Your task to perform on an android device: Add logitech g pro to the cart on walmart.com, then select checkout. Image 0: 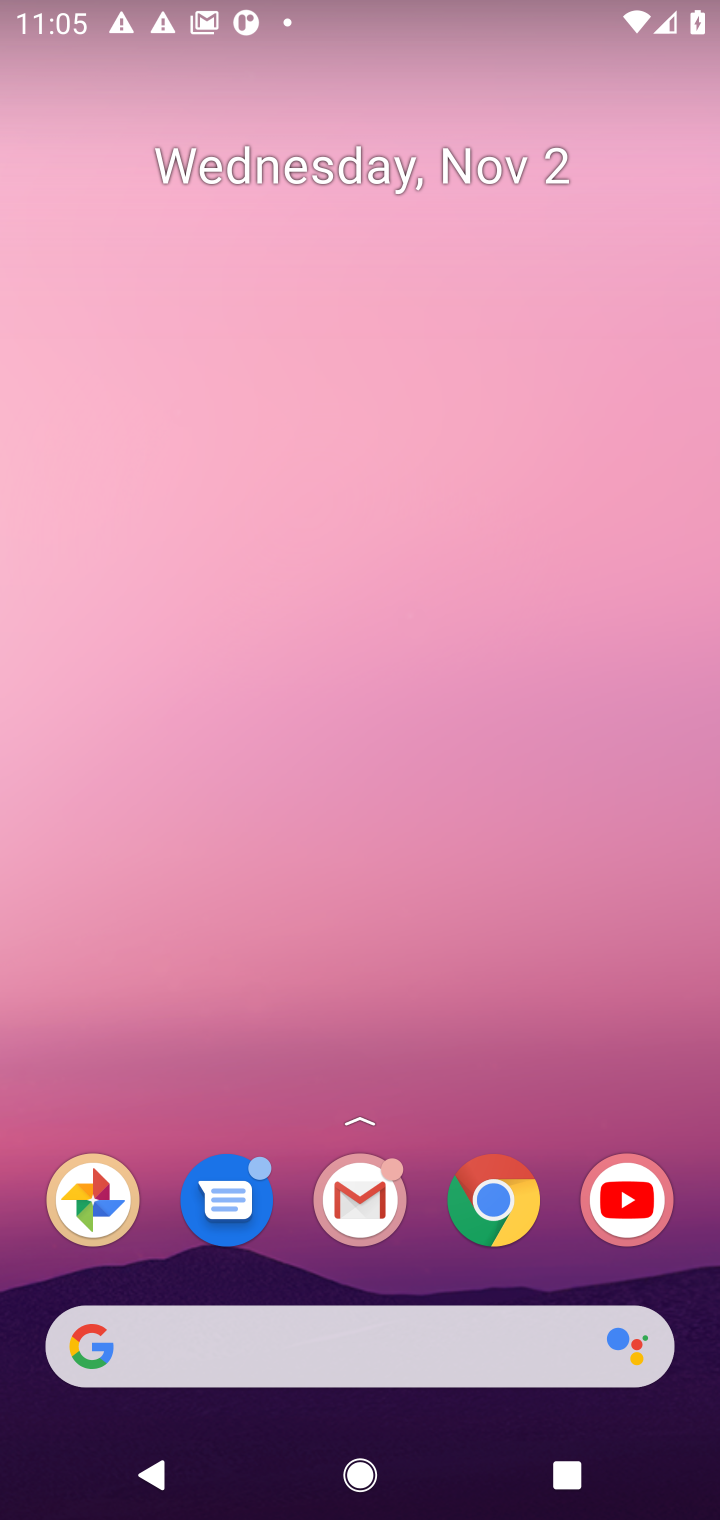
Step 0: click (512, 1194)
Your task to perform on an android device: Add logitech g pro to the cart on walmart.com, then select checkout. Image 1: 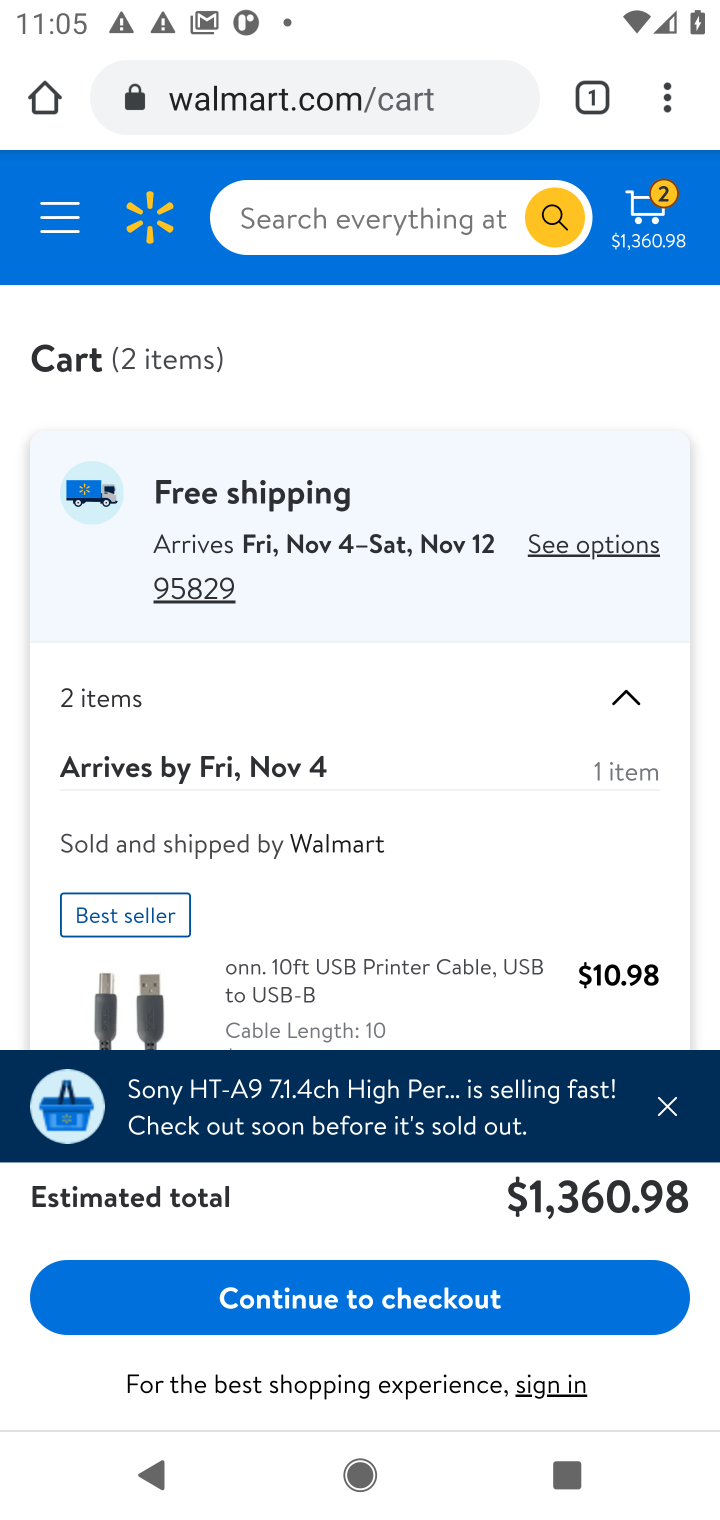
Step 1: click (376, 203)
Your task to perform on an android device: Add logitech g pro to the cart on walmart.com, then select checkout. Image 2: 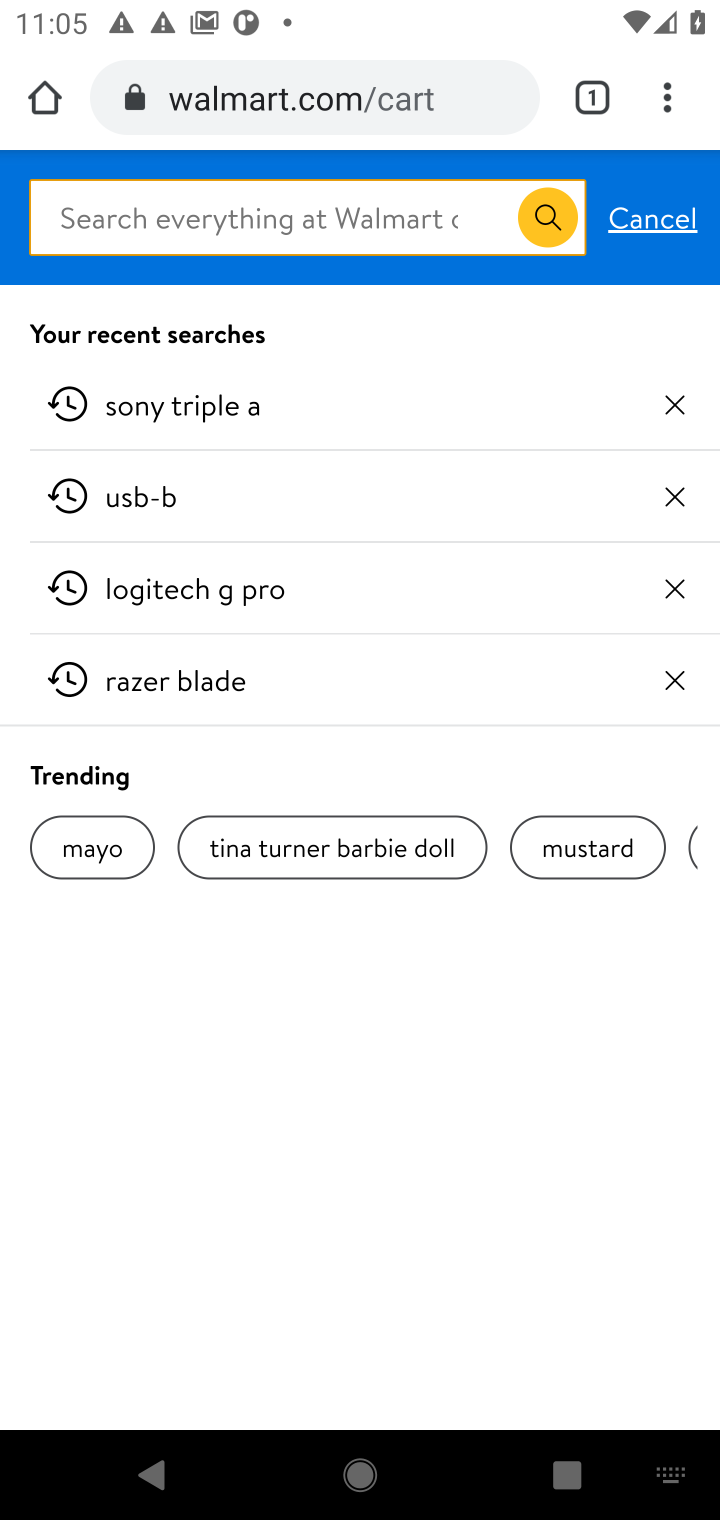
Step 2: click (215, 574)
Your task to perform on an android device: Add logitech g pro to the cart on walmart.com, then select checkout. Image 3: 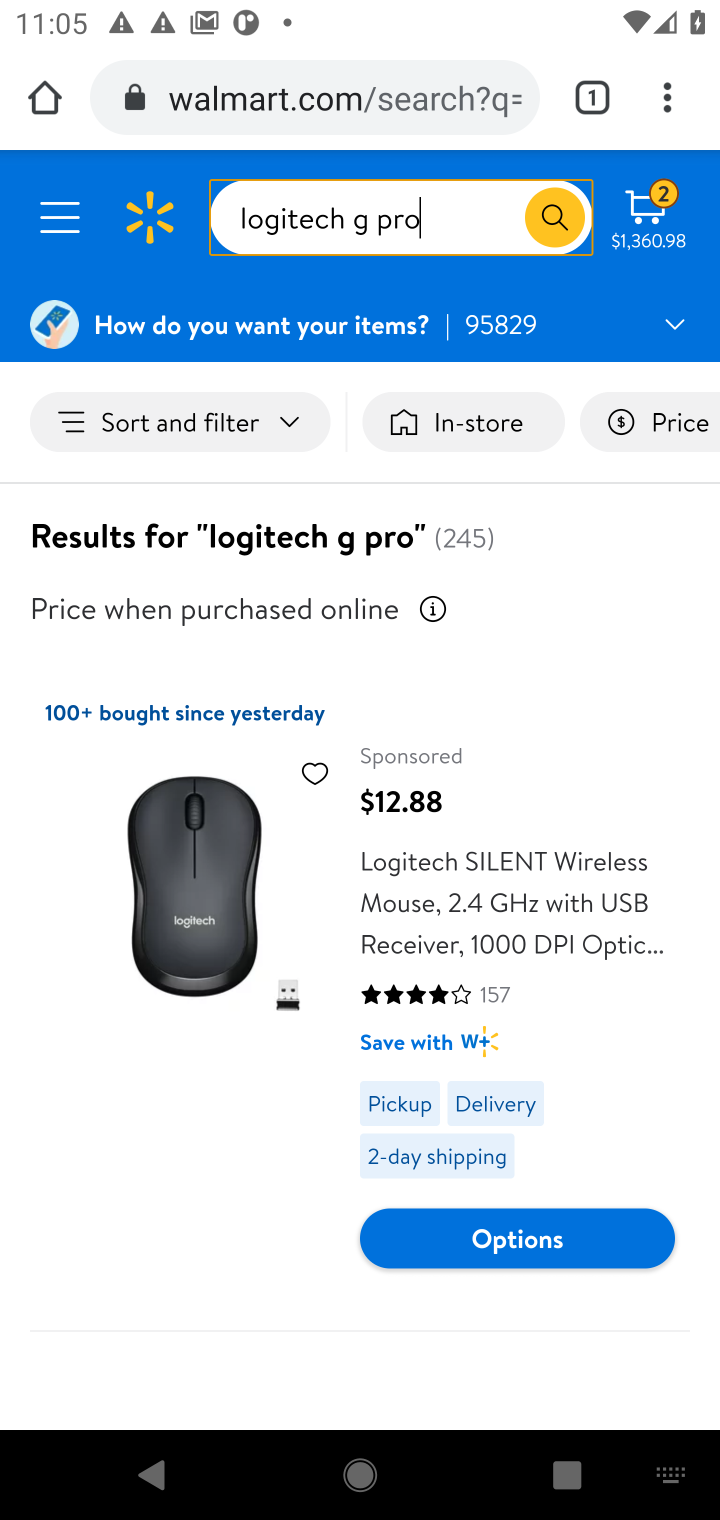
Step 3: drag from (196, 1055) to (173, 450)
Your task to perform on an android device: Add logitech g pro to the cart on walmart.com, then select checkout. Image 4: 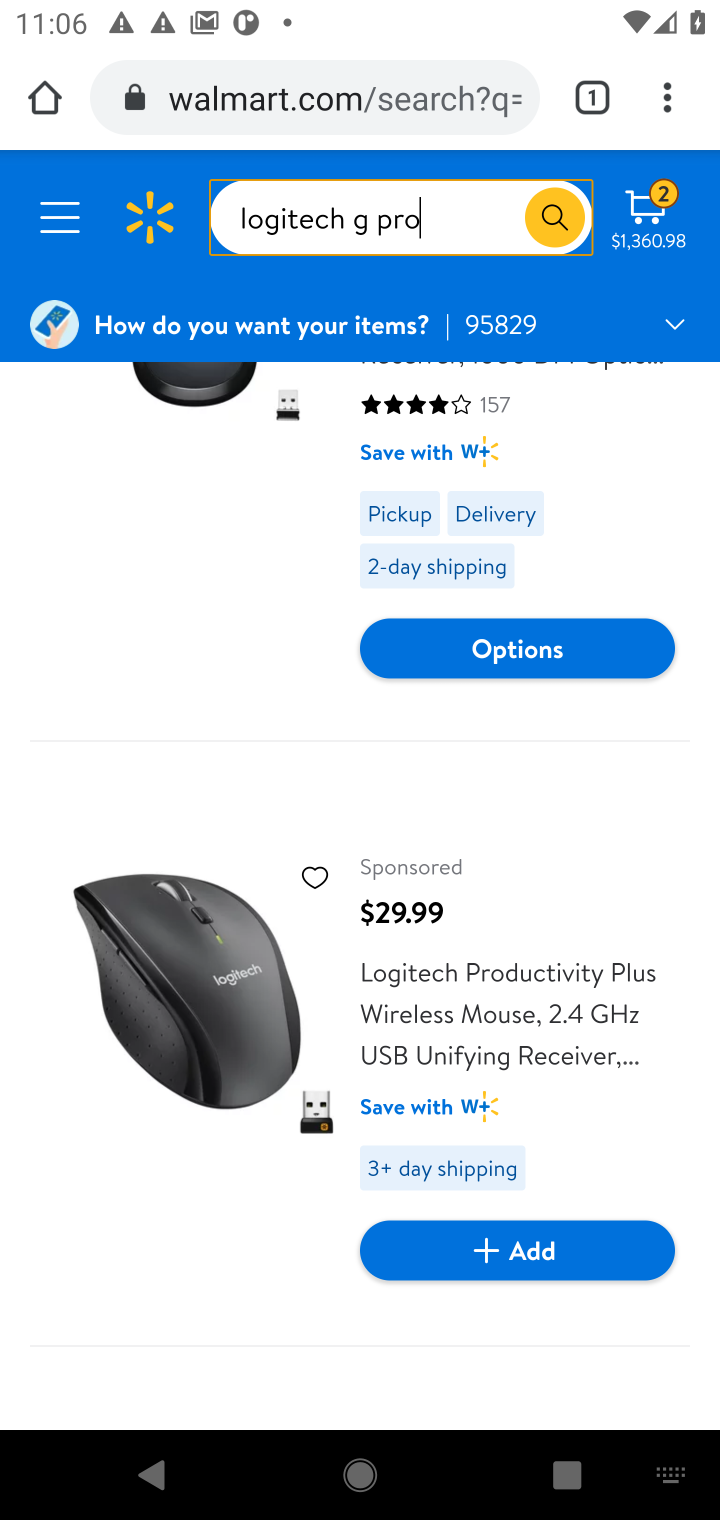
Step 4: drag from (163, 962) to (208, 467)
Your task to perform on an android device: Add logitech g pro to the cart on walmart.com, then select checkout. Image 5: 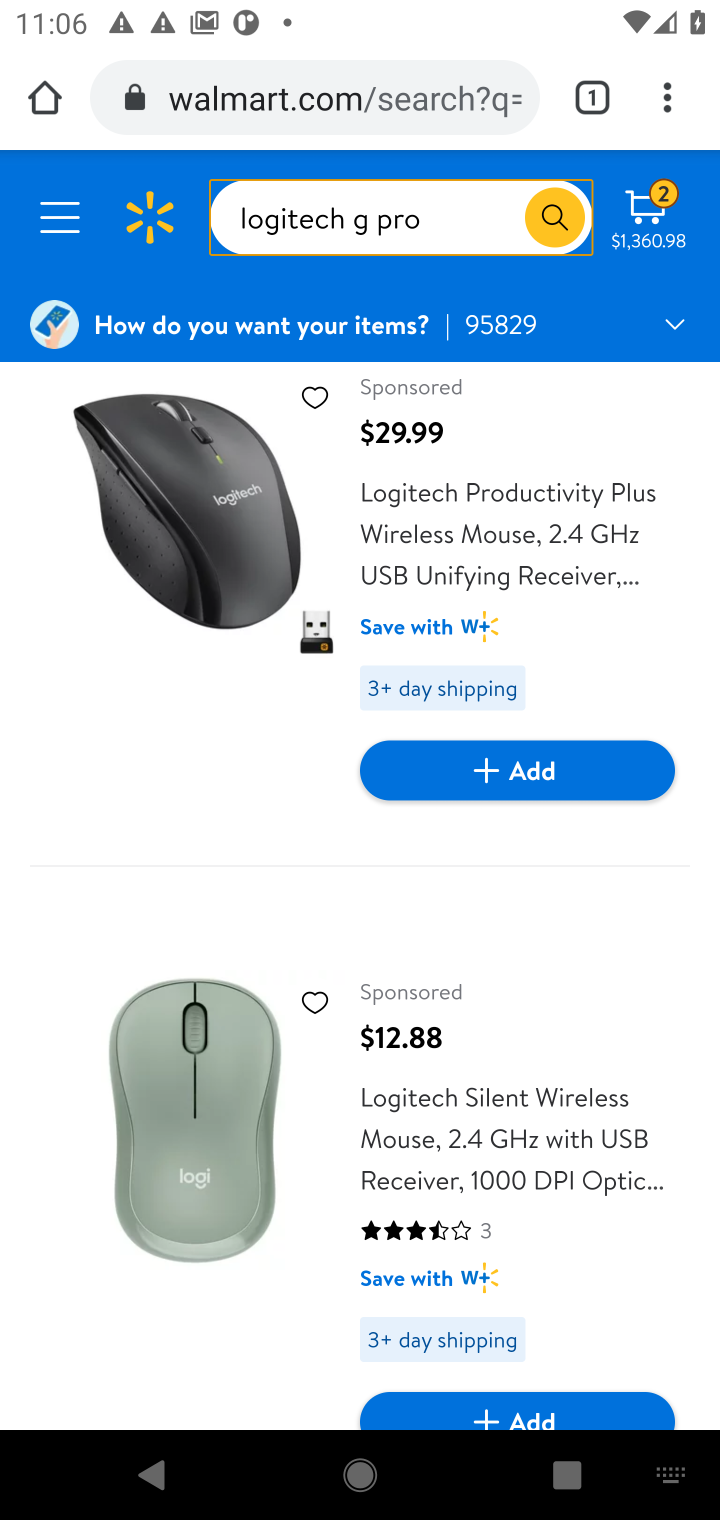
Step 5: drag from (212, 1205) to (229, 601)
Your task to perform on an android device: Add logitech g pro to the cart on walmart.com, then select checkout. Image 6: 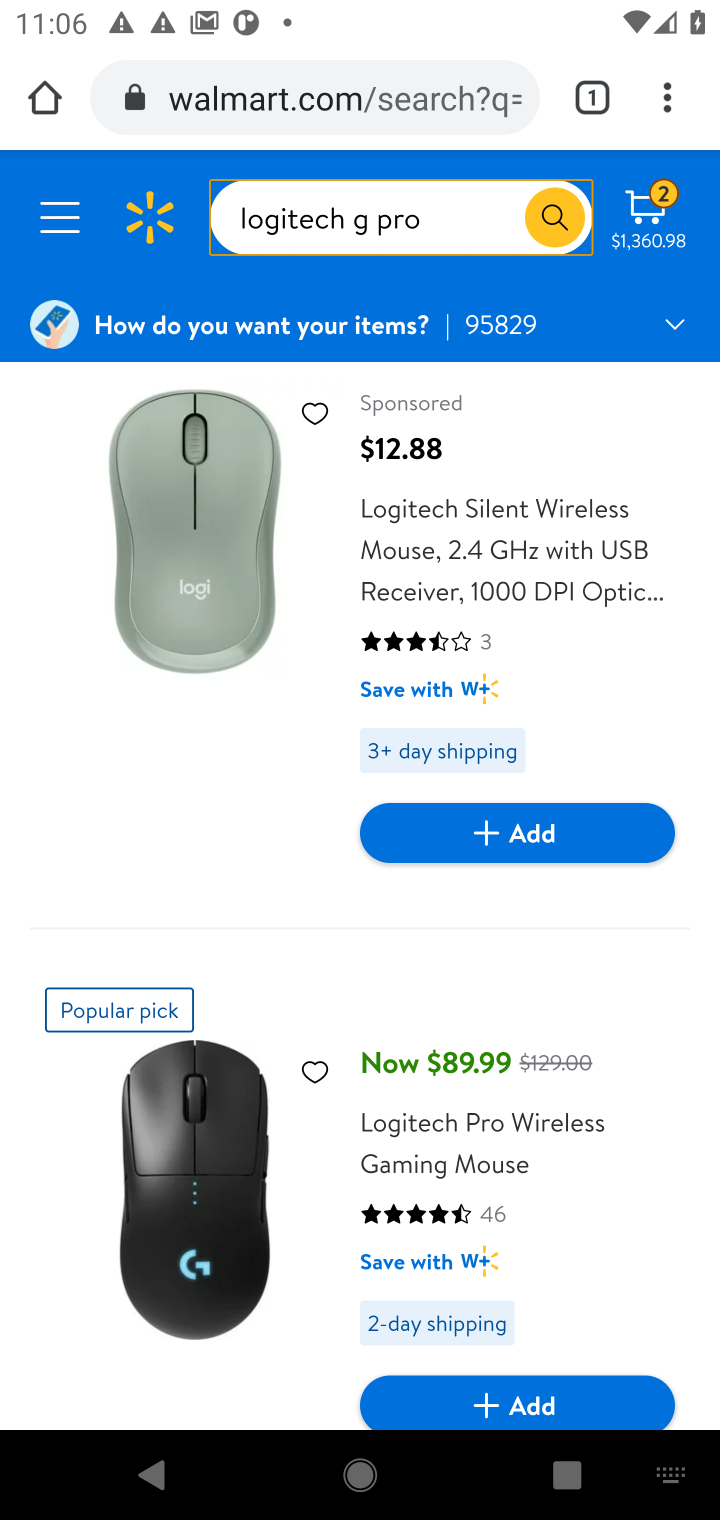
Step 6: drag from (146, 1136) to (282, 502)
Your task to perform on an android device: Add logitech g pro to the cart on walmart.com, then select checkout. Image 7: 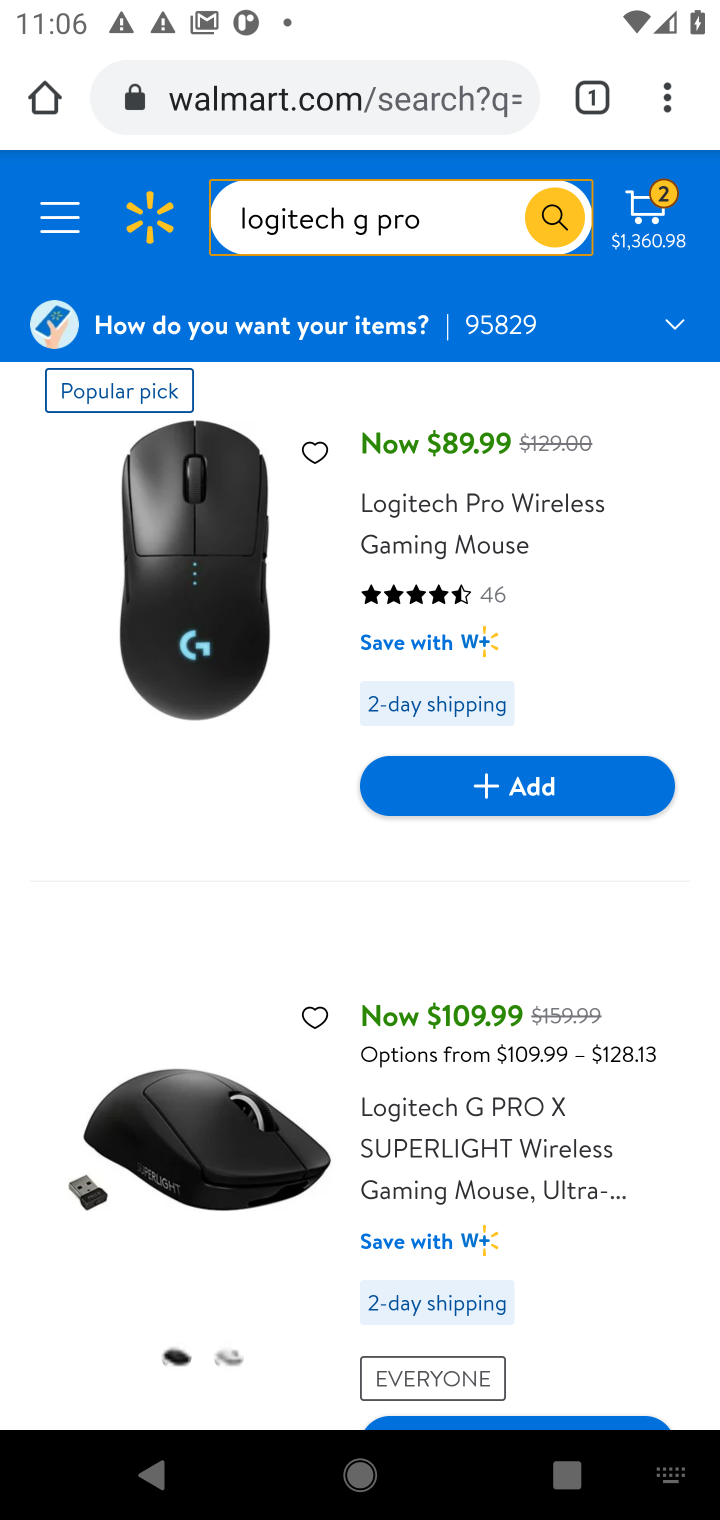
Step 7: click (172, 1179)
Your task to perform on an android device: Add logitech g pro to the cart on walmart.com, then select checkout. Image 8: 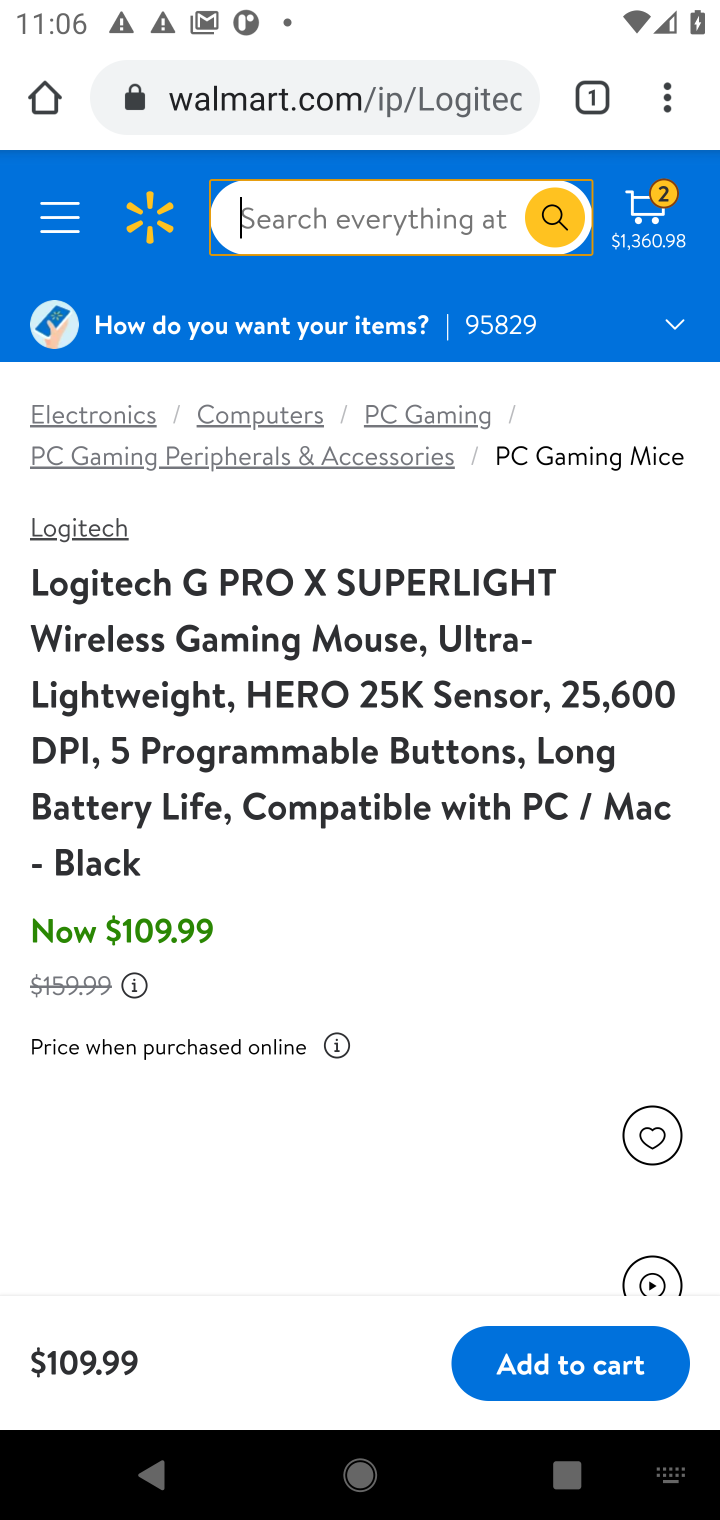
Step 8: click (548, 1372)
Your task to perform on an android device: Add logitech g pro to the cart on walmart.com, then select checkout. Image 9: 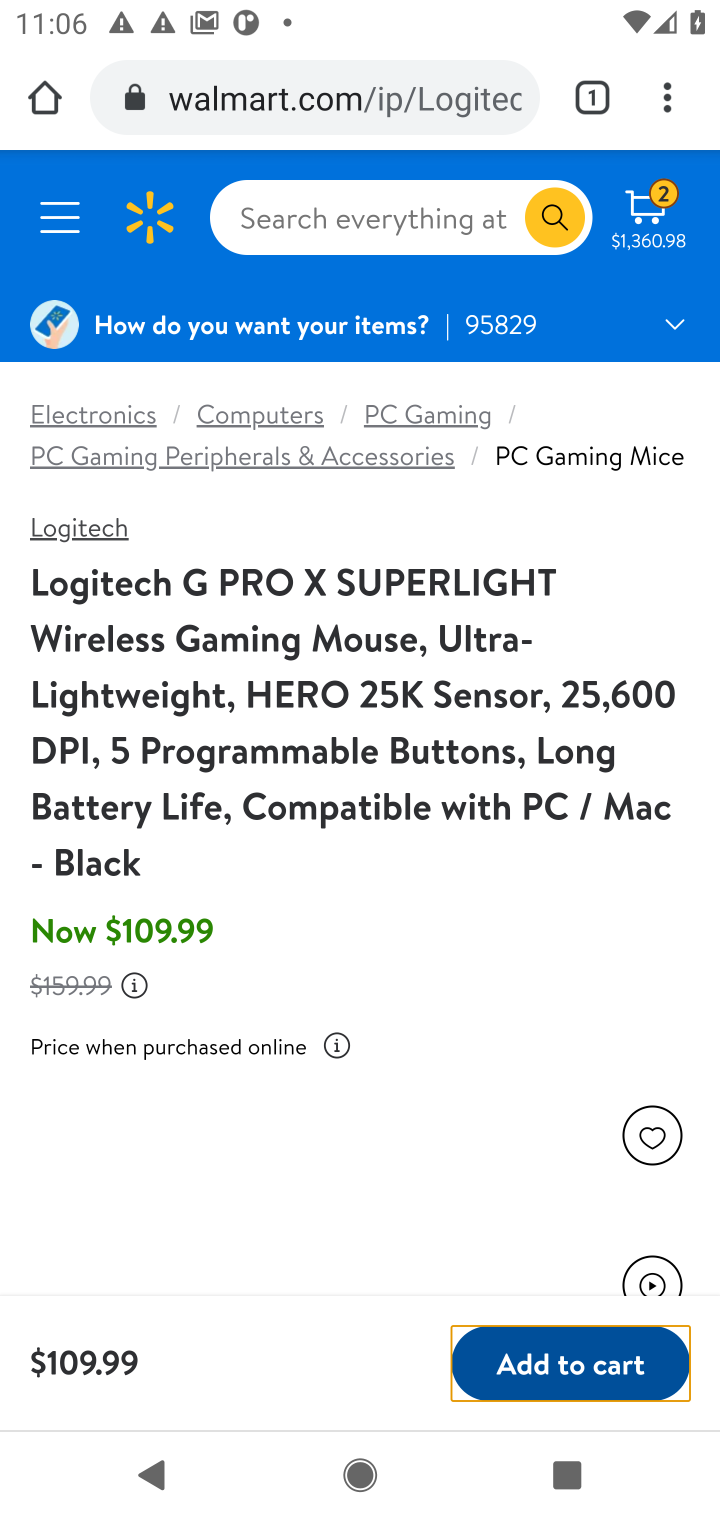
Step 9: click (548, 976)
Your task to perform on an android device: Add logitech g pro to the cart on walmart.com, then select checkout. Image 10: 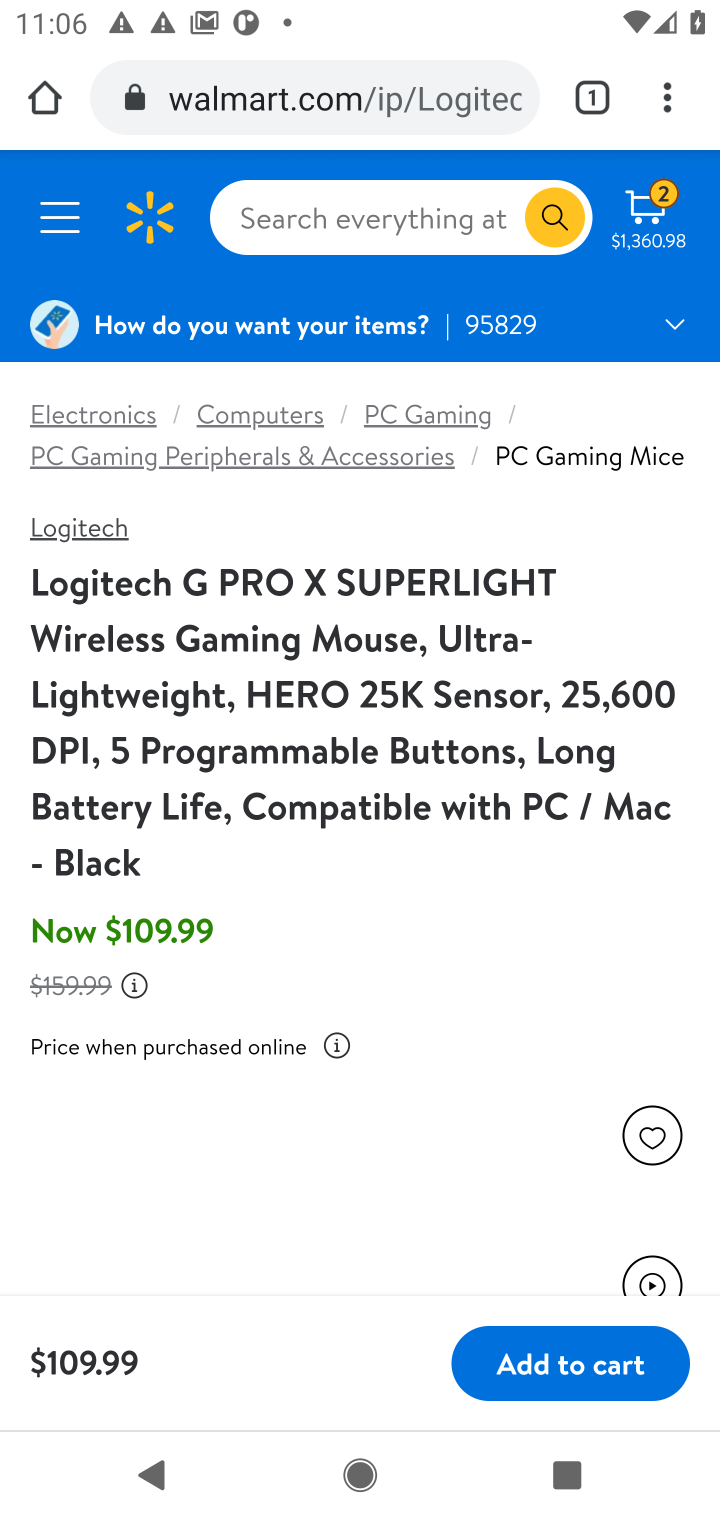
Step 10: click (609, 1370)
Your task to perform on an android device: Add logitech g pro to the cart on walmart.com, then select checkout. Image 11: 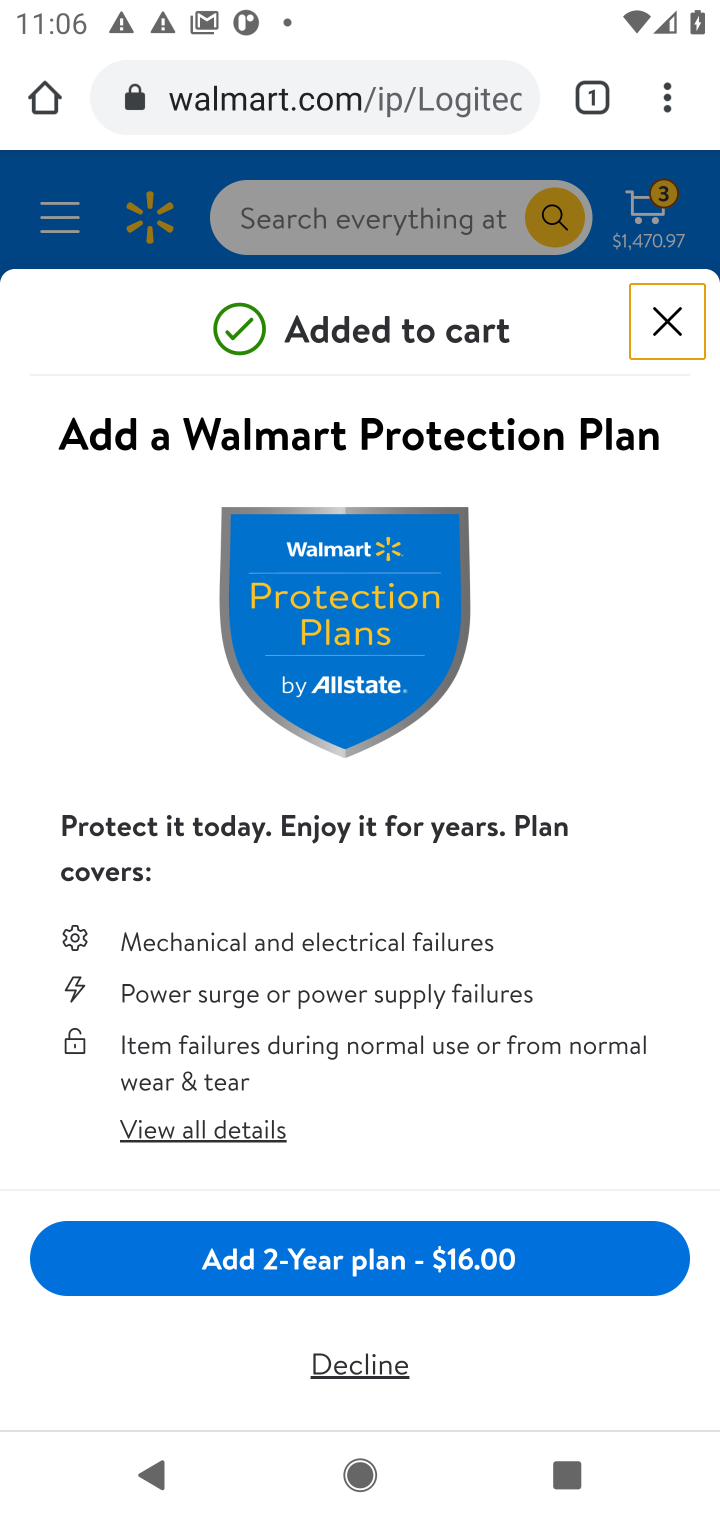
Step 11: click (667, 320)
Your task to perform on an android device: Add logitech g pro to the cart on walmart.com, then select checkout. Image 12: 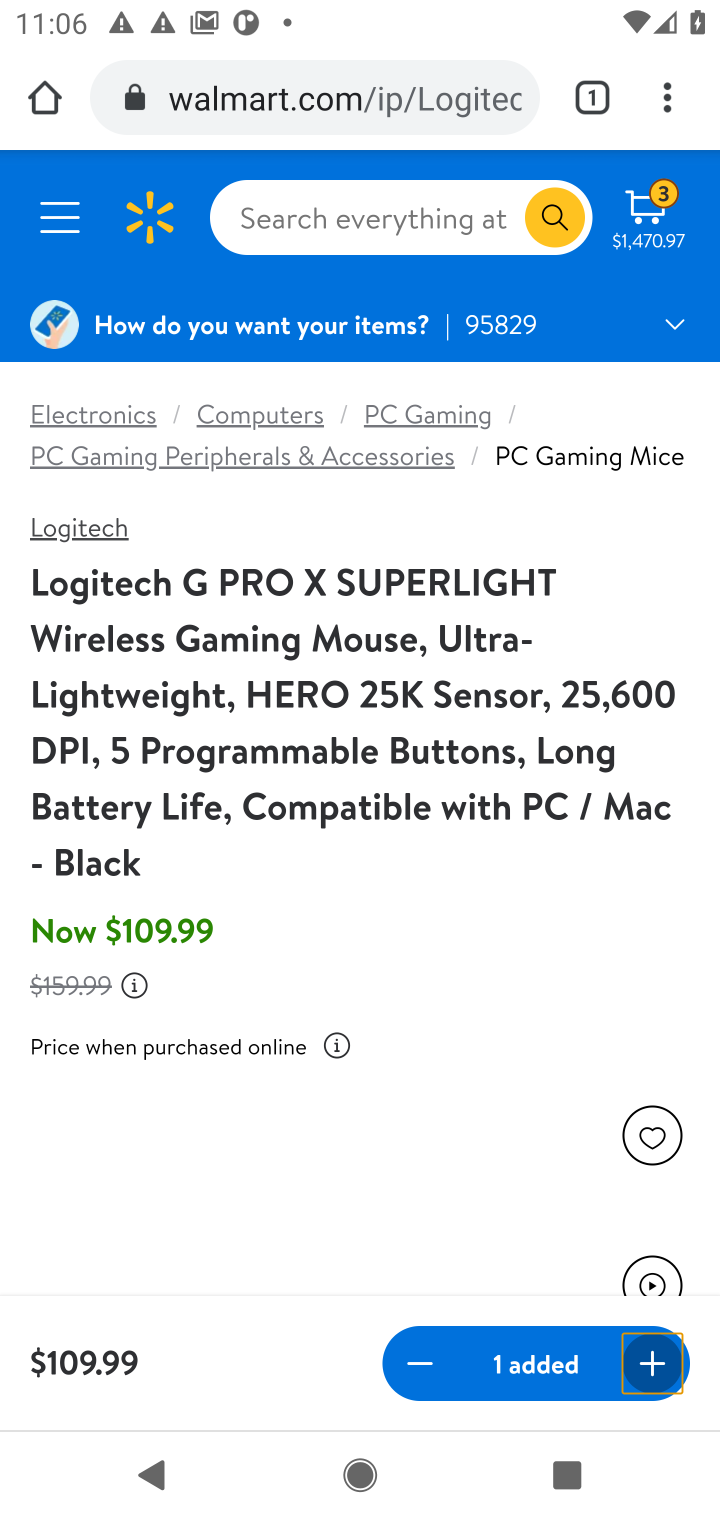
Step 12: click (655, 203)
Your task to perform on an android device: Add logitech g pro to the cart on walmart.com, then select checkout. Image 13: 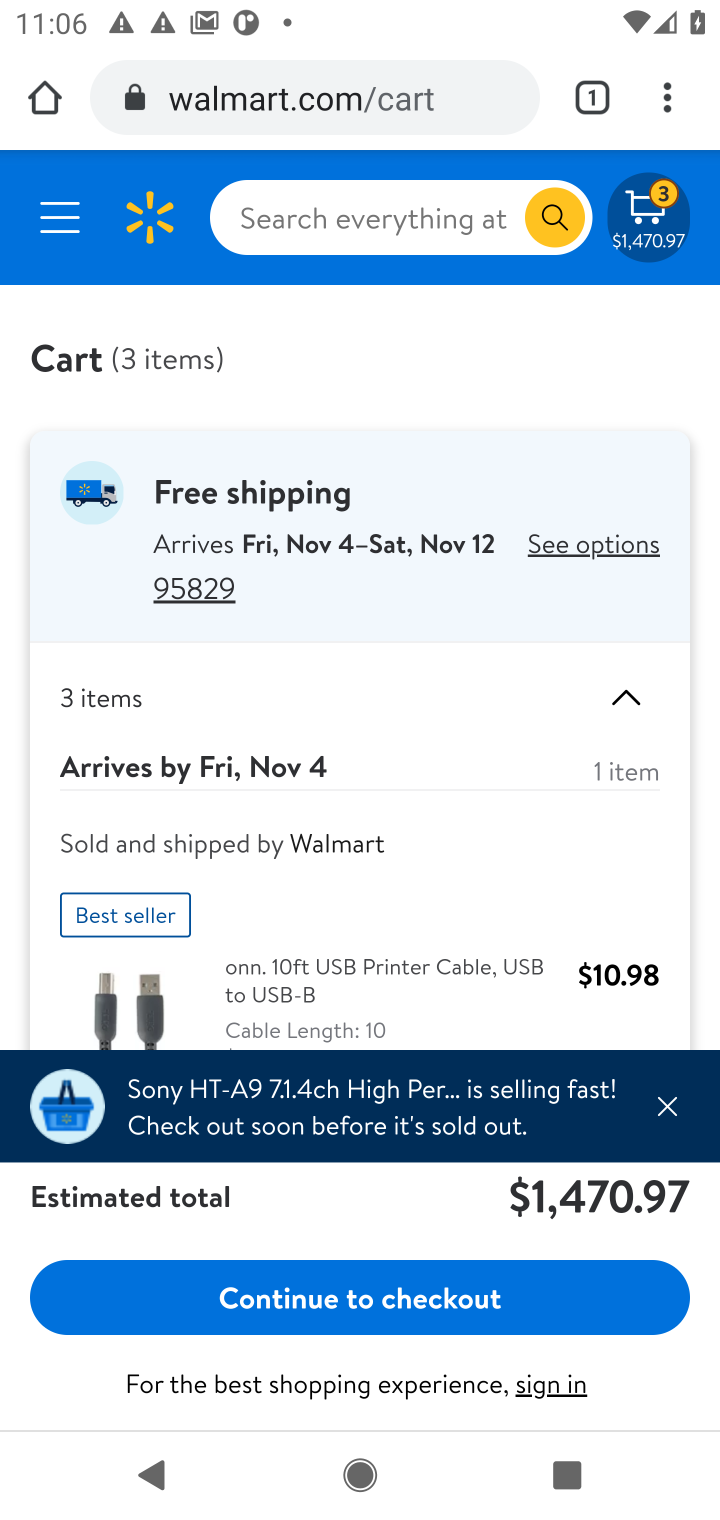
Step 13: drag from (513, 872) to (472, 486)
Your task to perform on an android device: Add logitech g pro to the cart on walmart.com, then select checkout. Image 14: 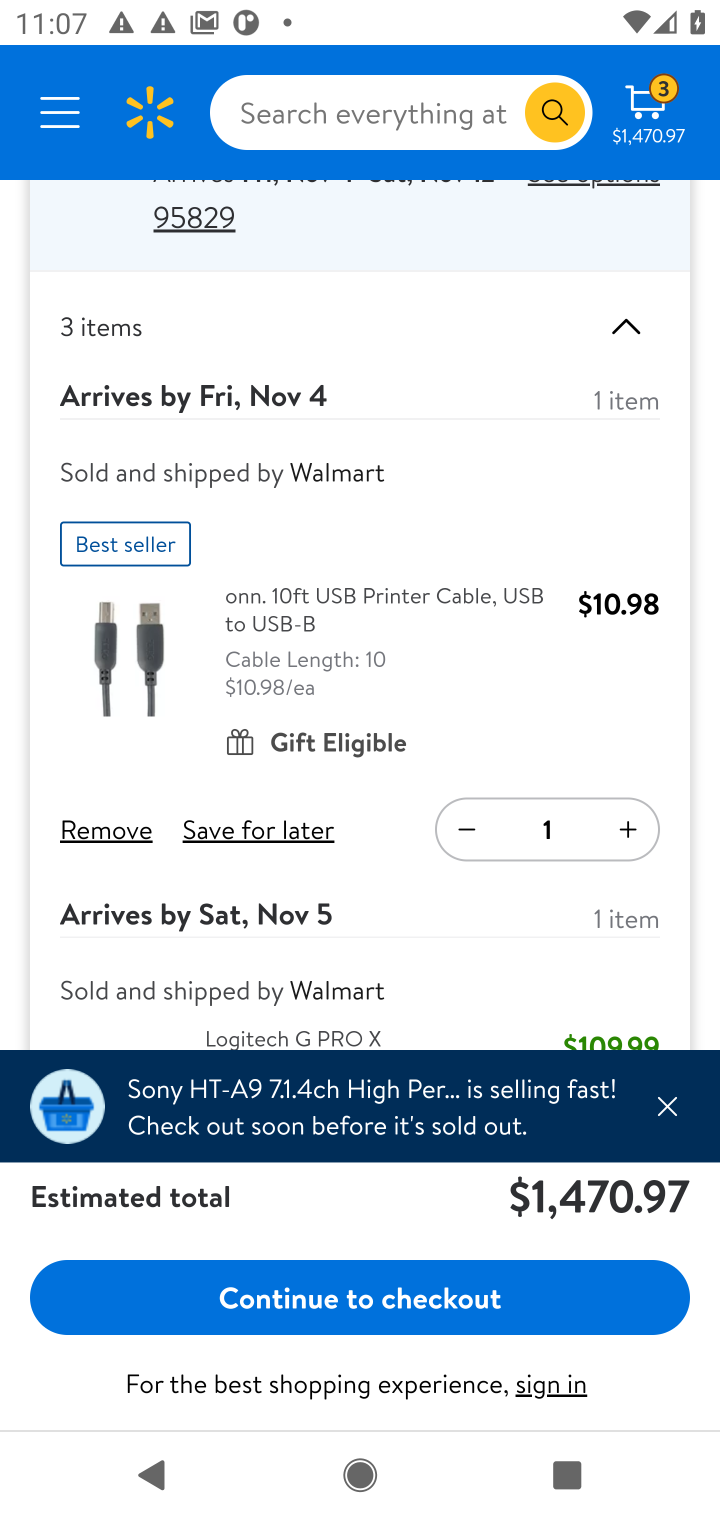
Step 14: click (95, 832)
Your task to perform on an android device: Add logitech g pro to the cart on walmart.com, then select checkout. Image 15: 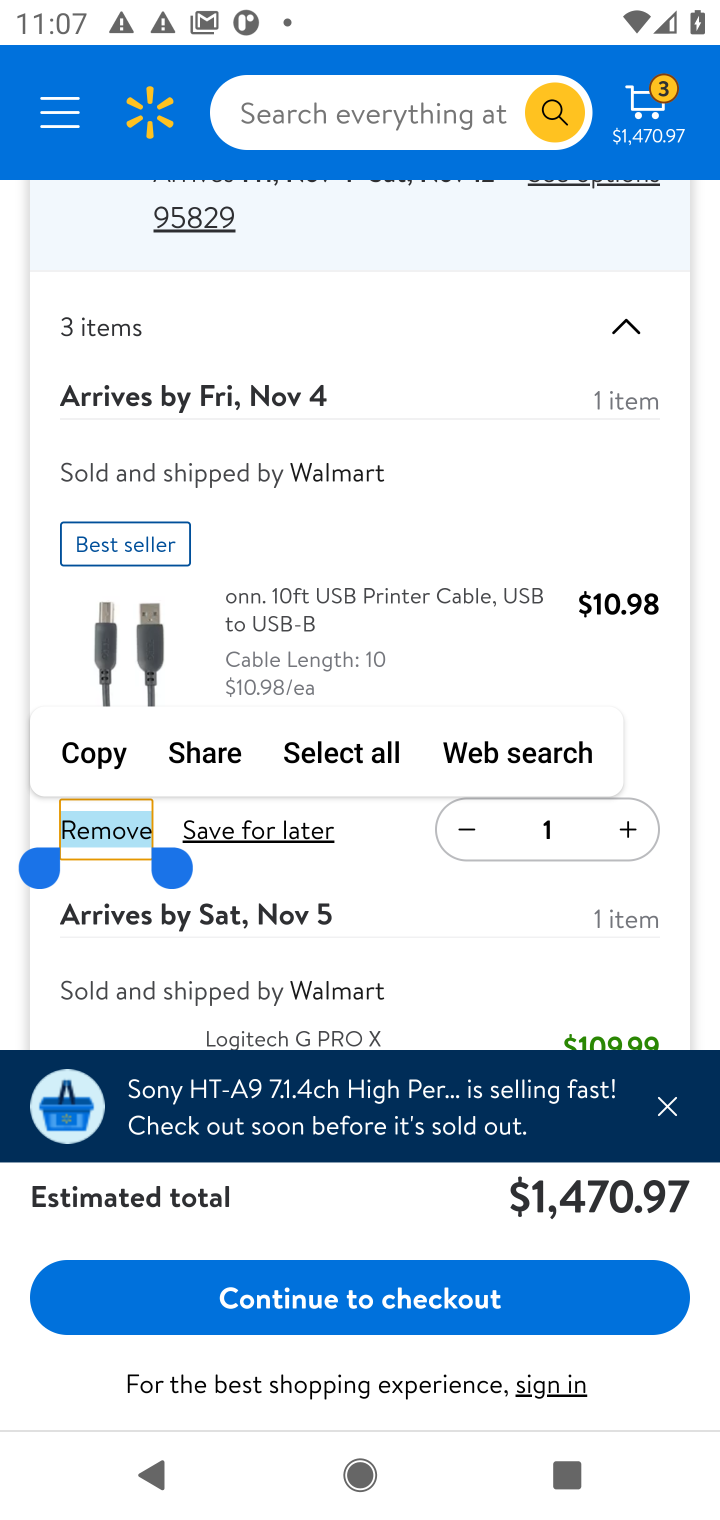
Step 15: click (670, 459)
Your task to perform on an android device: Add logitech g pro to the cart on walmart.com, then select checkout. Image 16: 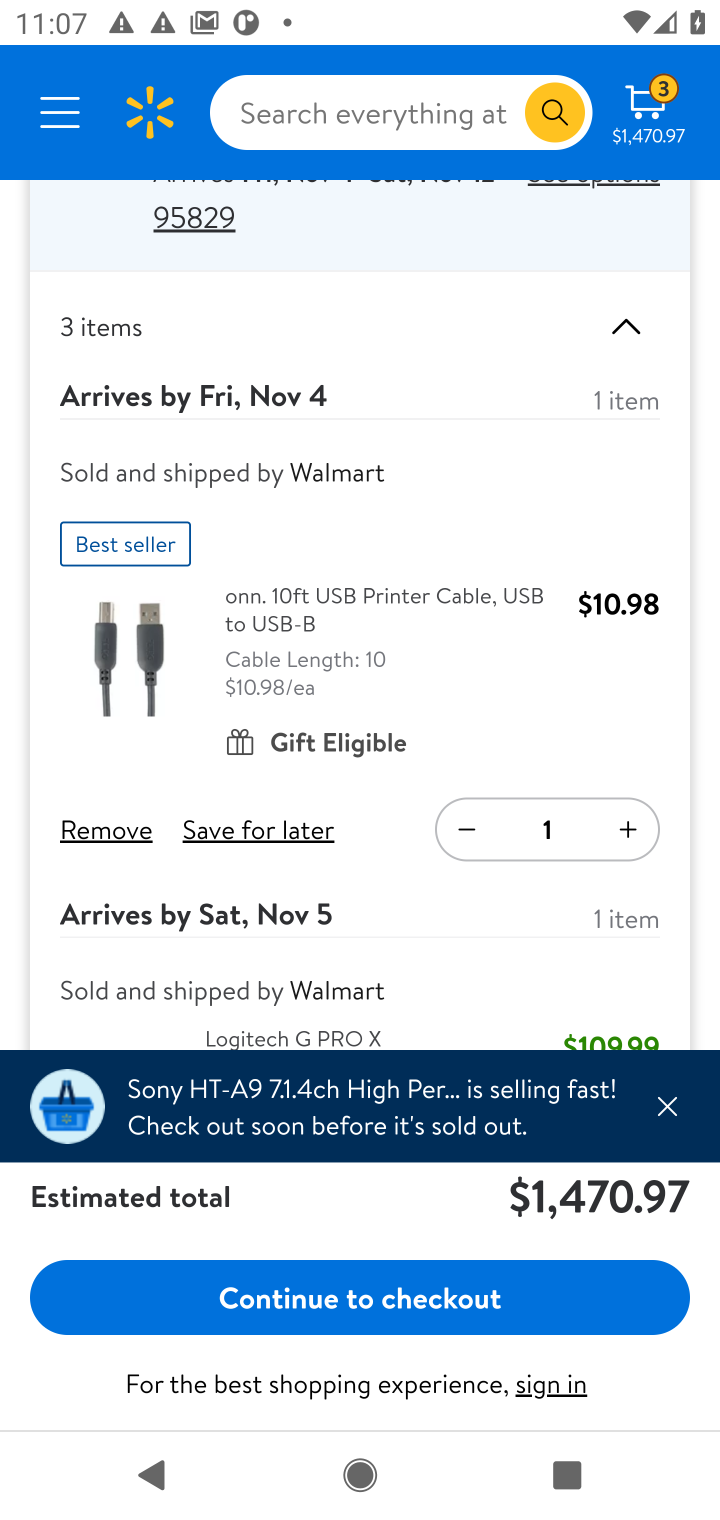
Step 16: click (122, 824)
Your task to perform on an android device: Add logitech g pro to the cart on walmart.com, then select checkout. Image 17: 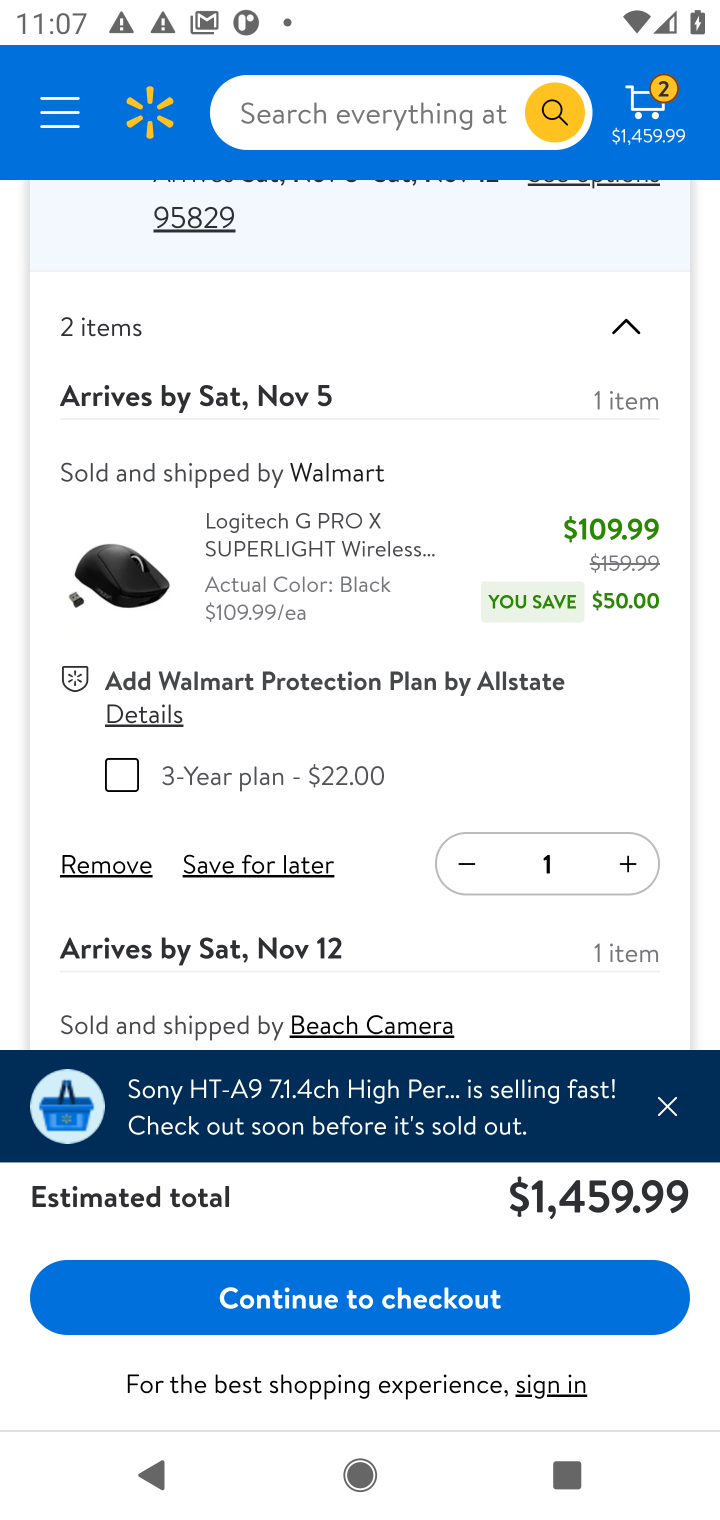
Step 17: click (117, 868)
Your task to perform on an android device: Add logitech g pro to the cart on walmart.com, then select checkout. Image 18: 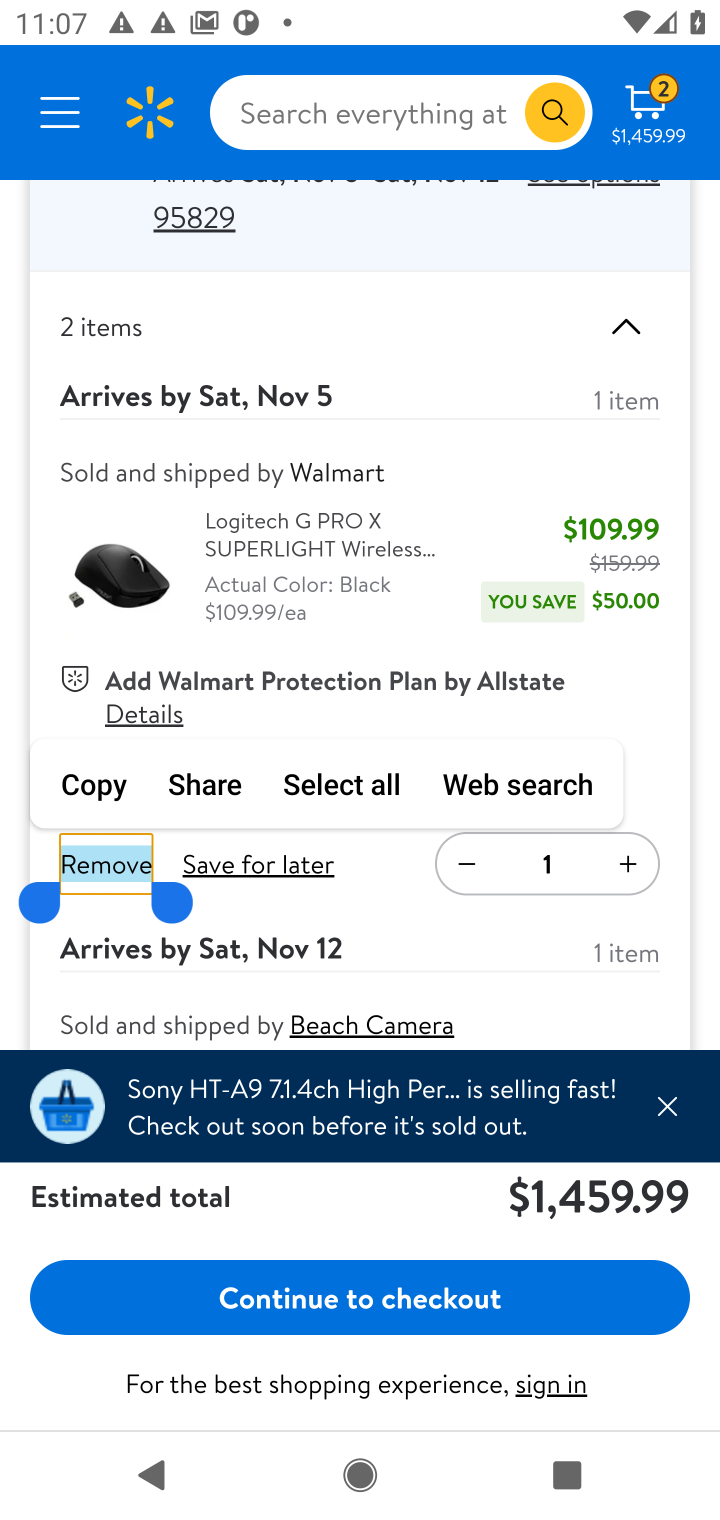
Step 18: click (444, 335)
Your task to perform on an android device: Add logitech g pro to the cart on walmart.com, then select checkout. Image 19: 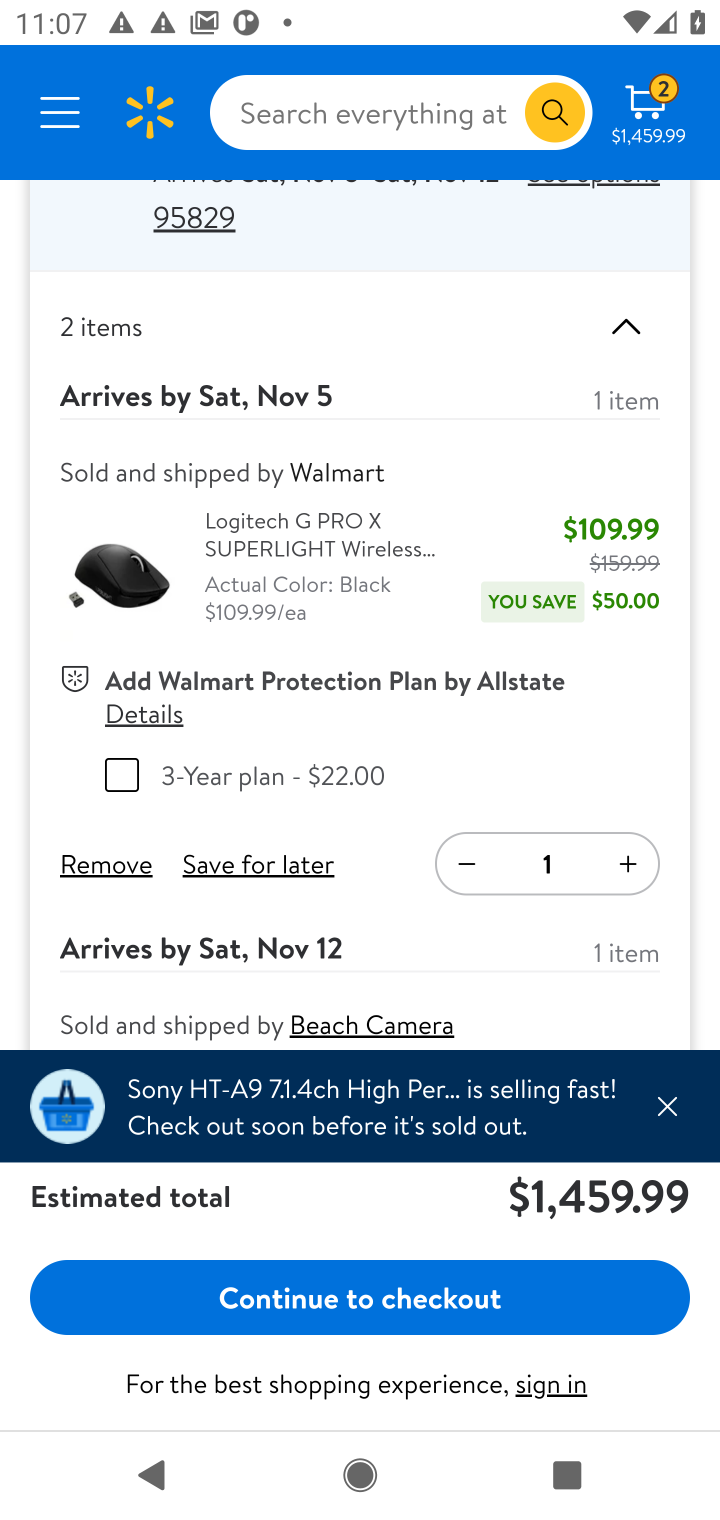
Step 19: click (398, 1289)
Your task to perform on an android device: Add logitech g pro to the cart on walmart.com, then select checkout. Image 20: 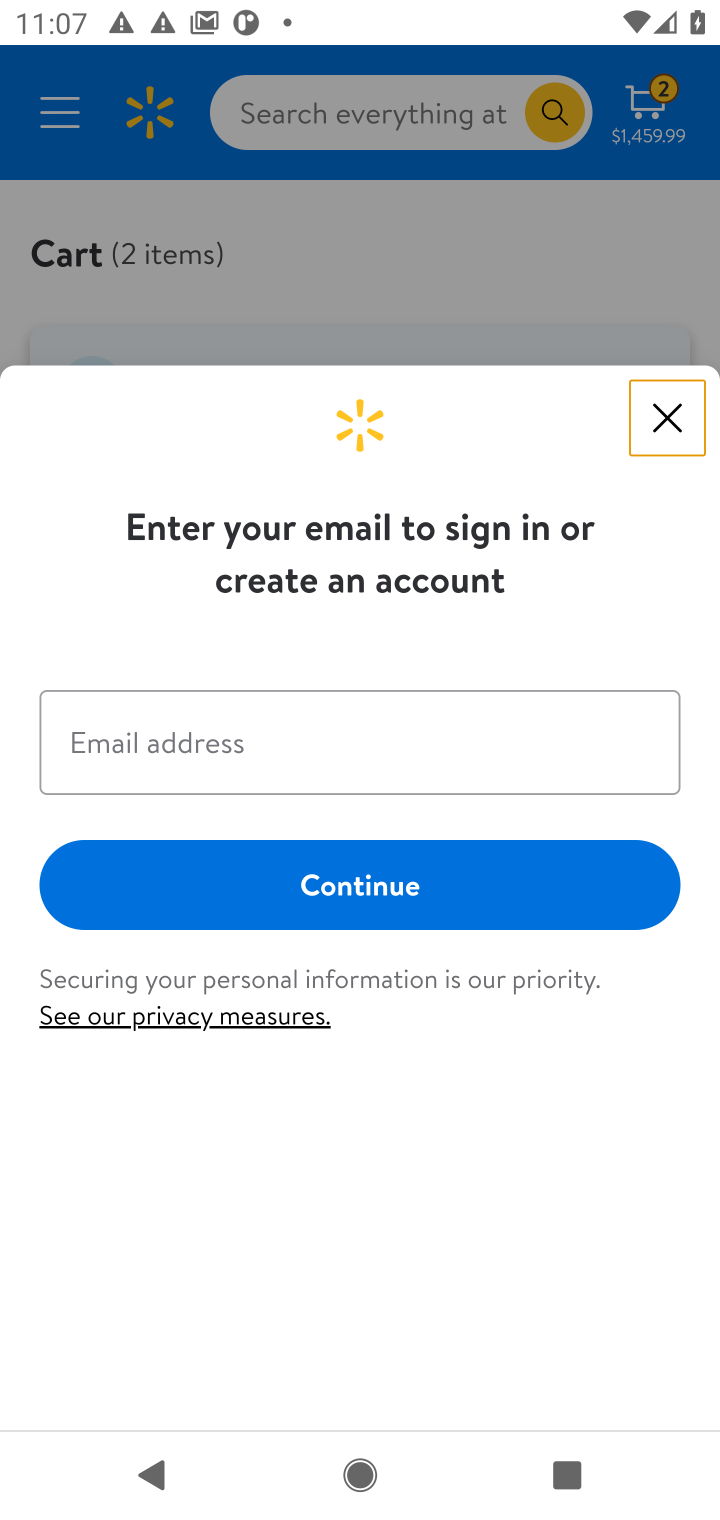
Step 20: task complete